Your task to perform on an android device: Open network settings Image 0: 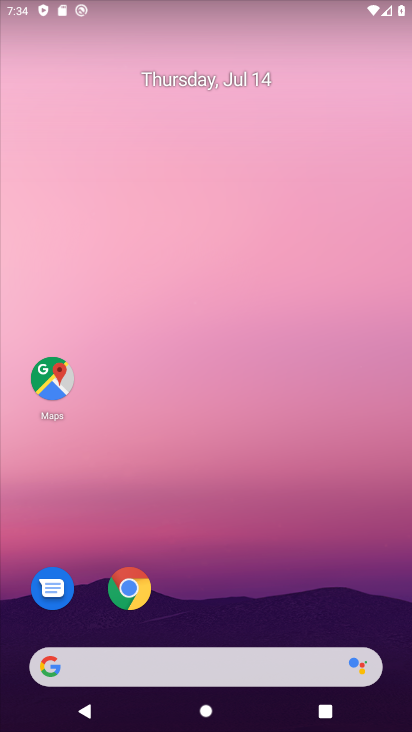
Step 0: drag from (83, 602) to (249, 149)
Your task to perform on an android device: Open network settings Image 1: 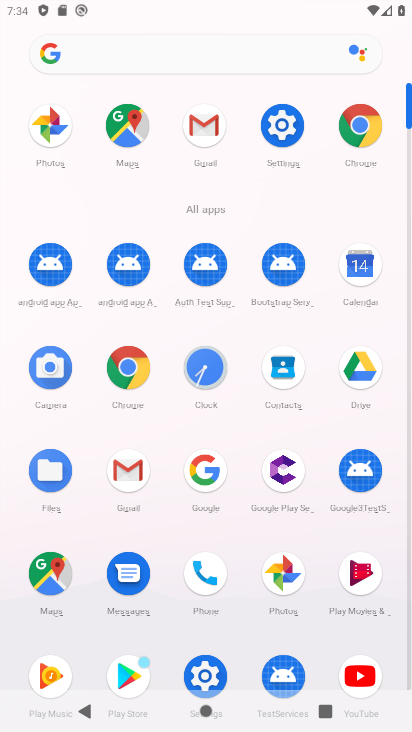
Step 1: click (193, 674)
Your task to perform on an android device: Open network settings Image 2: 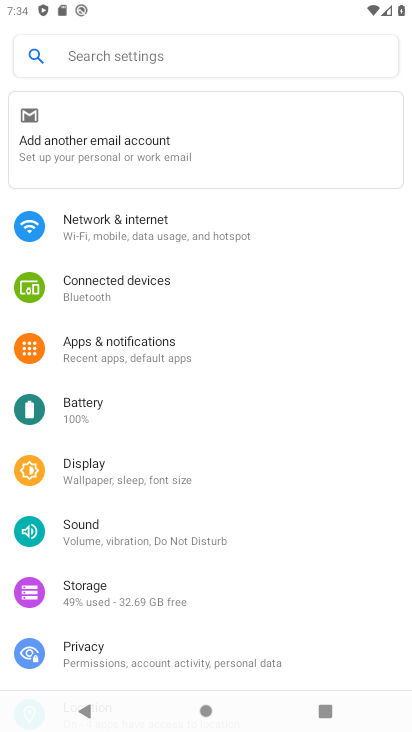
Step 2: click (139, 231)
Your task to perform on an android device: Open network settings Image 3: 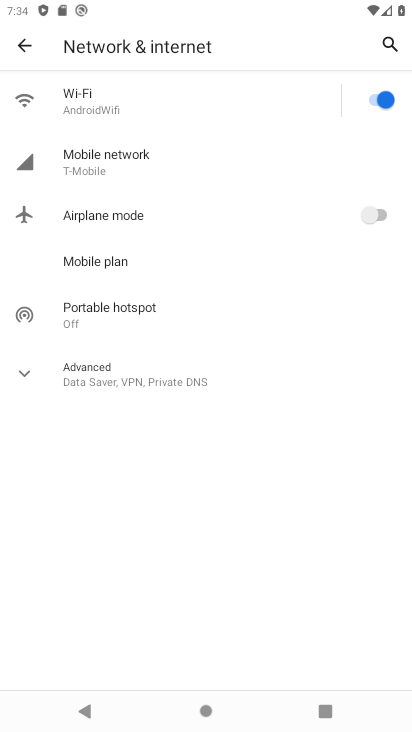
Step 3: click (100, 159)
Your task to perform on an android device: Open network settings Image 4: 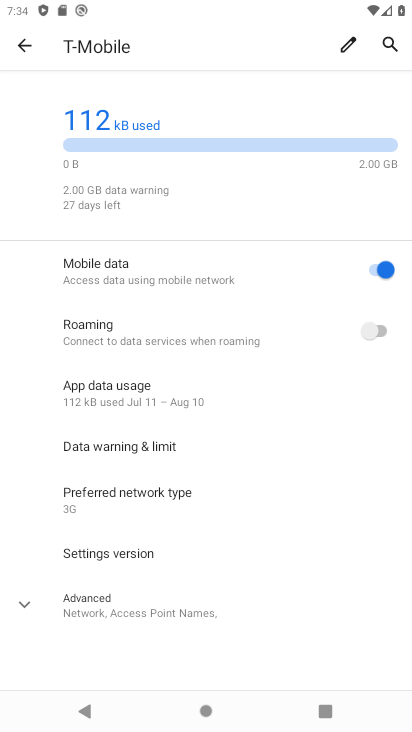
Step 4: task complete